Your task to perform on an android device: Show me recent news Image 0: 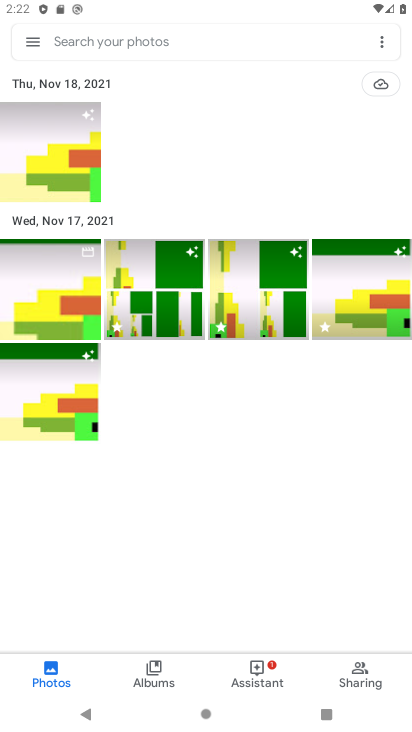
Step 0: press home button
Your task to perform on an android device: Show me recent news Image 1: 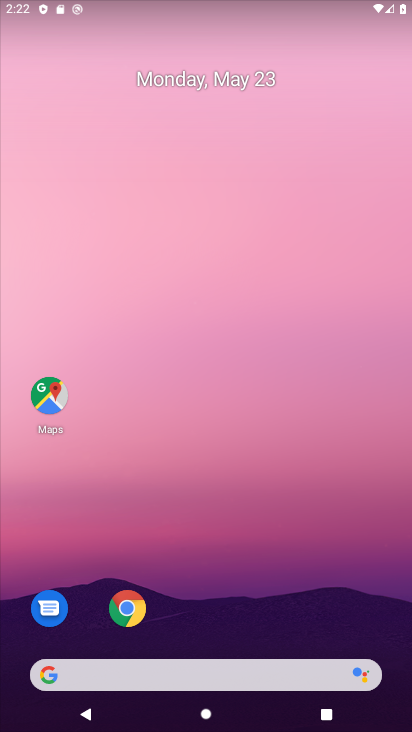
Step 1: drag from (228, 611) to (251, 351)
Your task to perform on an android device: Show me recent news Image 2: 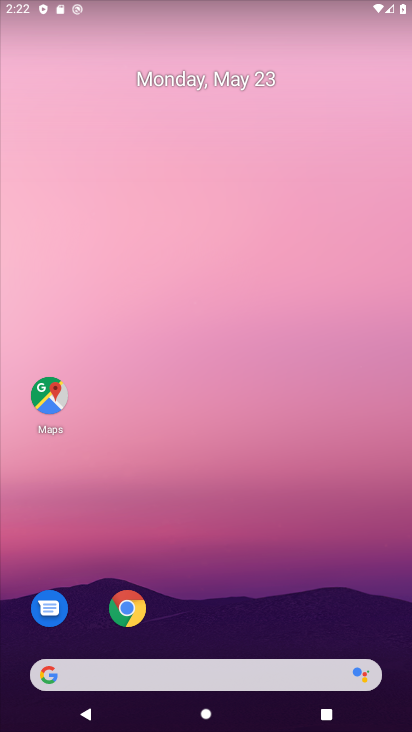
Step 2: drag from (203, 620) to (261, 191)
Your task to perform on an android device: Show me recent news Image 3: 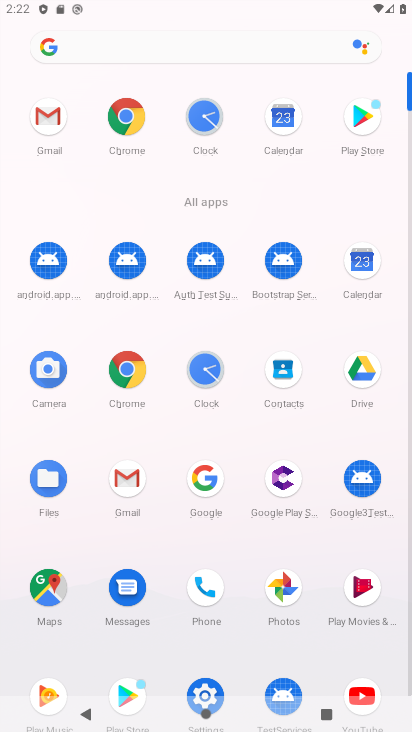
Step 3: click (123, 105)
Your task to perform on an android device: Show me recent news Image 4: 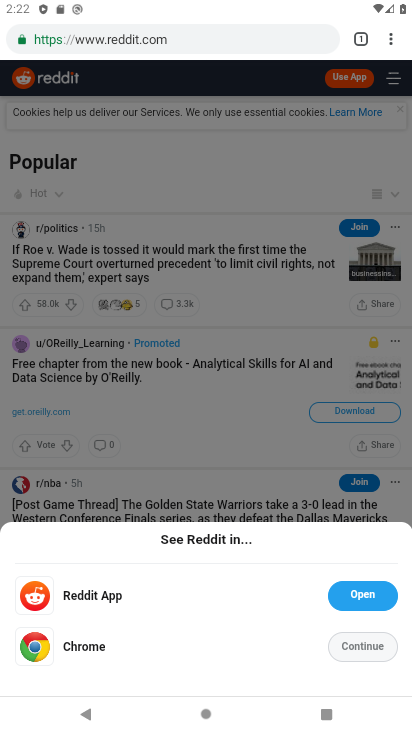
Step 4: click (194, 31)
Your task to perform on an android device: Show me recent news Image 5: 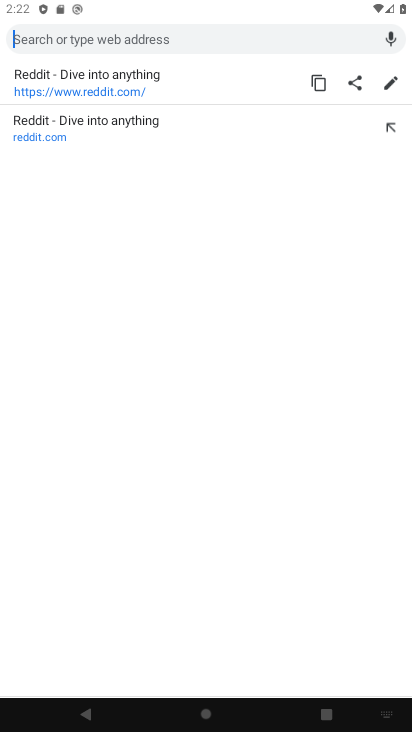
Step 5: click (397, 35)
Your task to perform on an android device: Show me recent news Image 6: 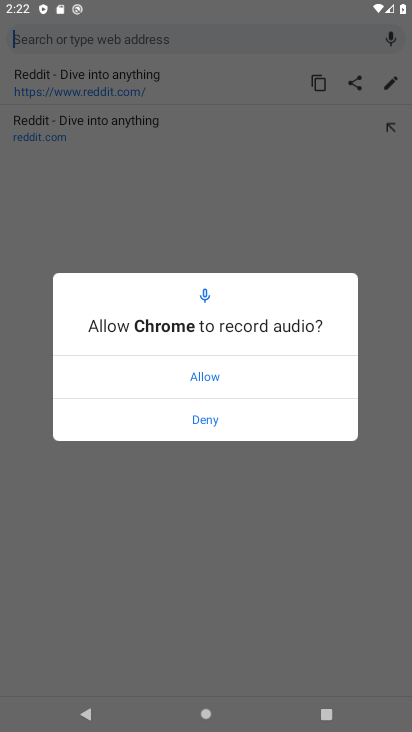
Step 6: click (205, 354)
Your task to perform on an android device: Show me recent news Image 7: 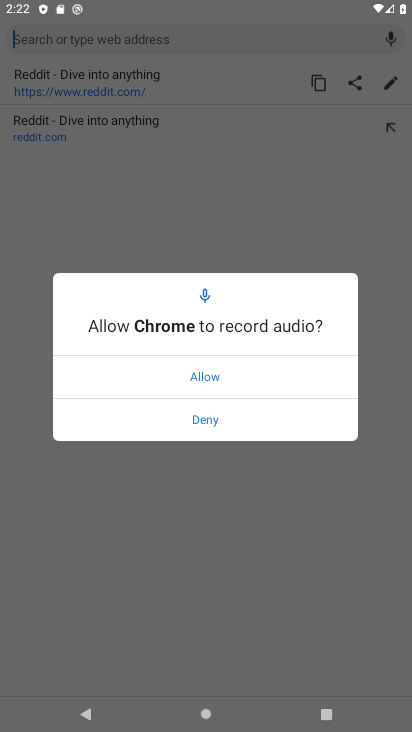
Step 7: press back button
Your task to perform on an android device: Show me recent news Image 8: 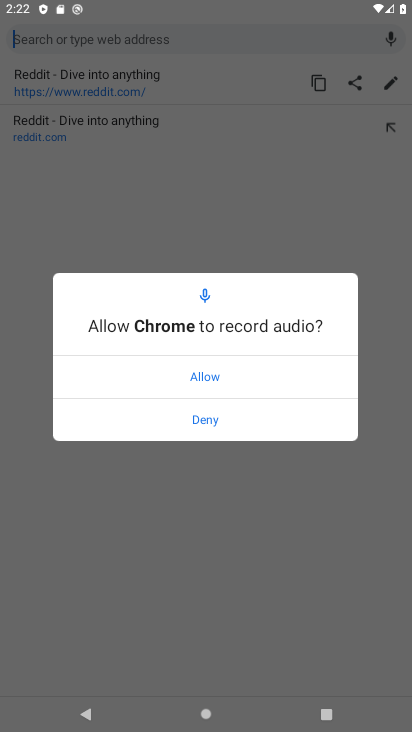
Step 8: click (192, 423)
Your task to perform on an android device: Show me recent news Image 9: 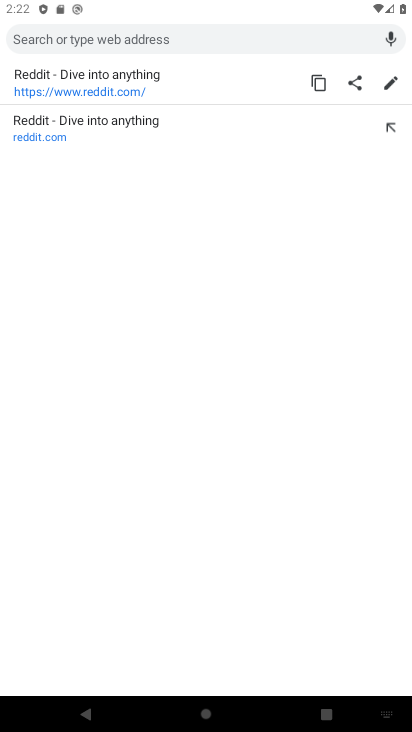
Step 9: press home button
Your task to perform on an android device: Show me recent news Image 10: 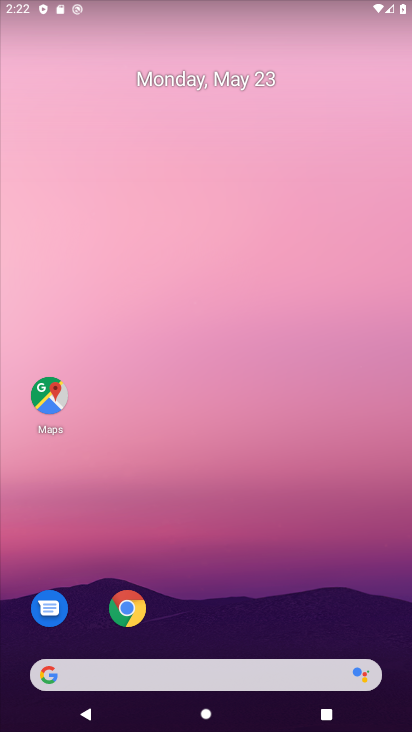
Step 10: drag from (214, 597) to (253, 268)
Your task to perform on an android device: Show me recent news Image 11: 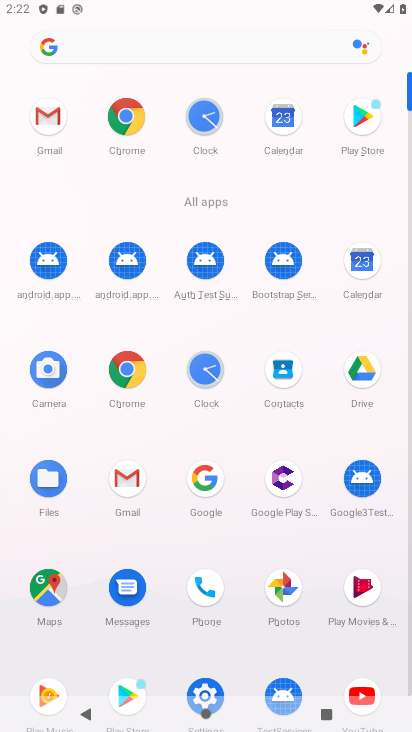
Step 11: click (125, 115)
Your task to perform on an android device: Show me recent news Image 12: 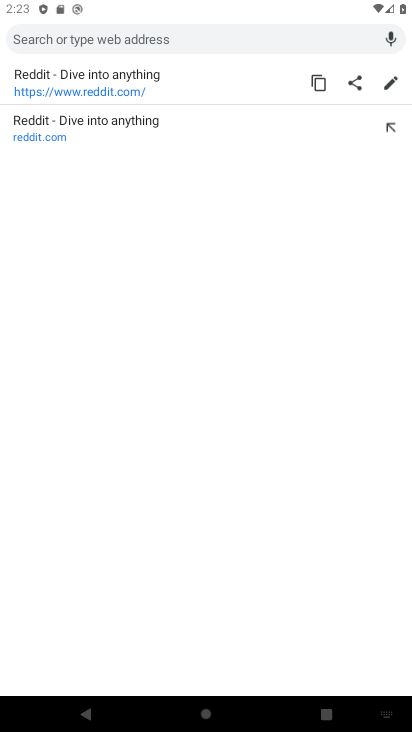
Step 12: click (184, 35)
Your task to perform on an android device: Show me recent news Image 13: 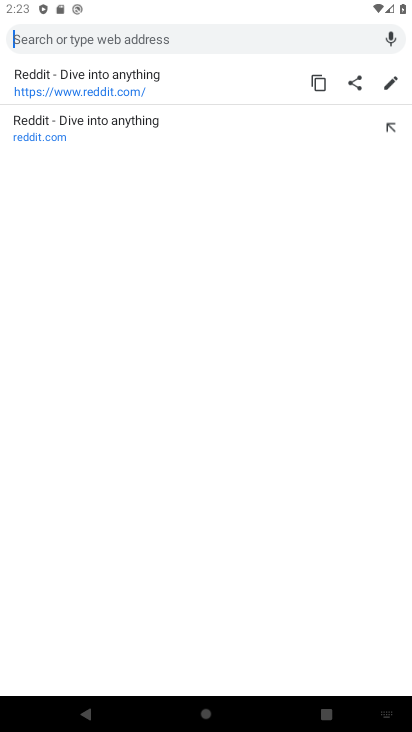
Step 13: type "Show me recent news"
Your task to perform on an android device: Show me recent news Image 14: 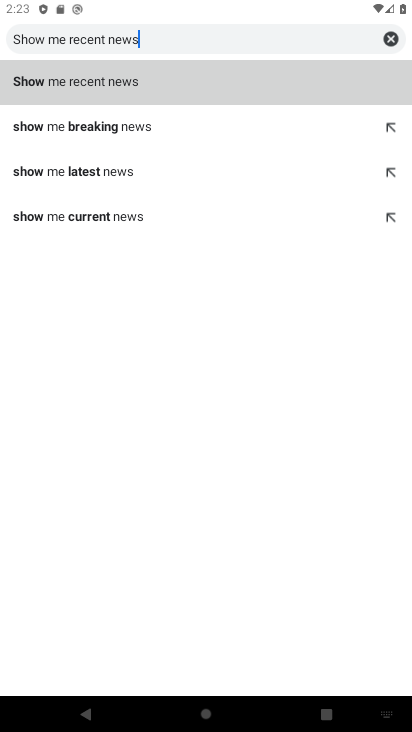
Step 14: click (137, 85)
Your task to perform on an android device: Show me recent news Image 15: 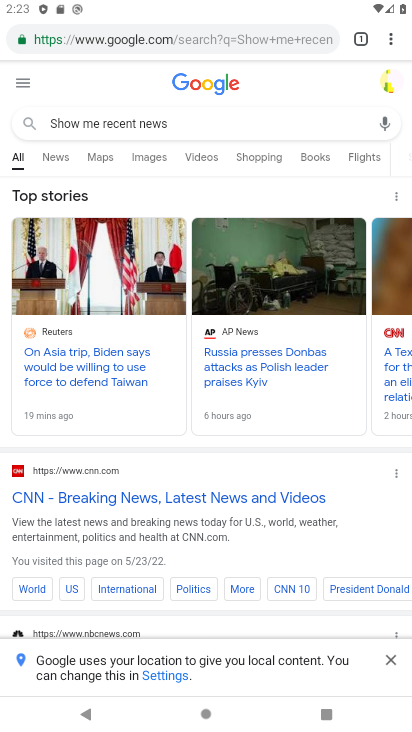
Step 15: task complete